Your task to perform on an android device: read, delete, or share a saved page in the chrome app Image 0: 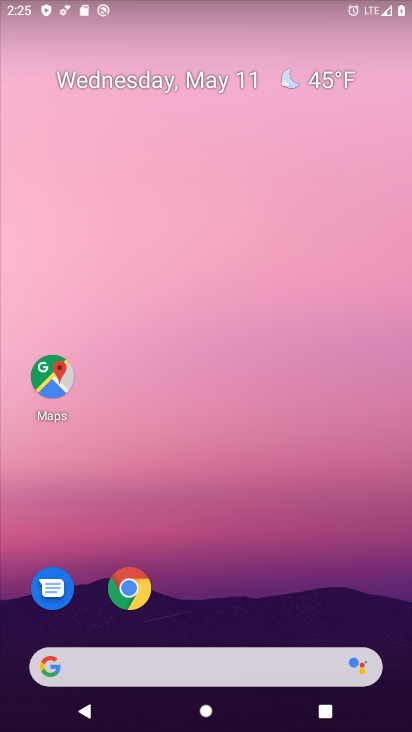
Step 0: drag from (220, 553) to (244, 280)
Your task to perform on an android device: read, delete, or share a saved page in the chrome app Image 1: 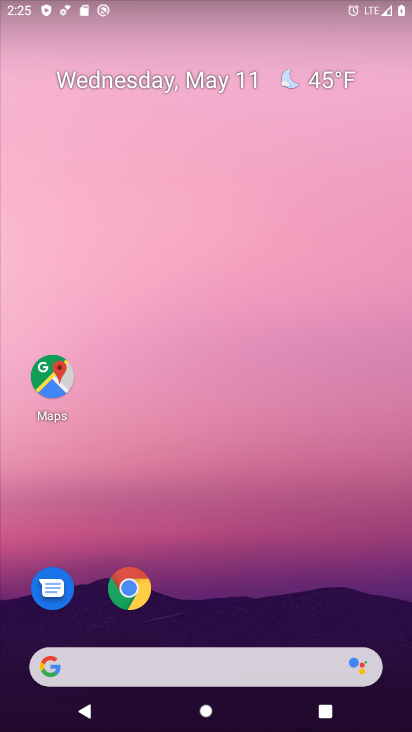
Step 1: click (137, 599)
Your task to perform on an android device: read, delete, or share a saved page in the chrome app Image 2: 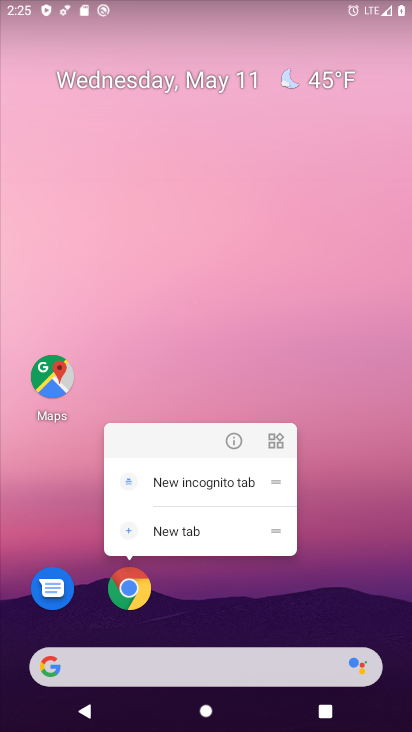
Step 2: click (137, 599)
Your task to perform on an android device: read, delete, or share a saved page in the chrome app Image 3: 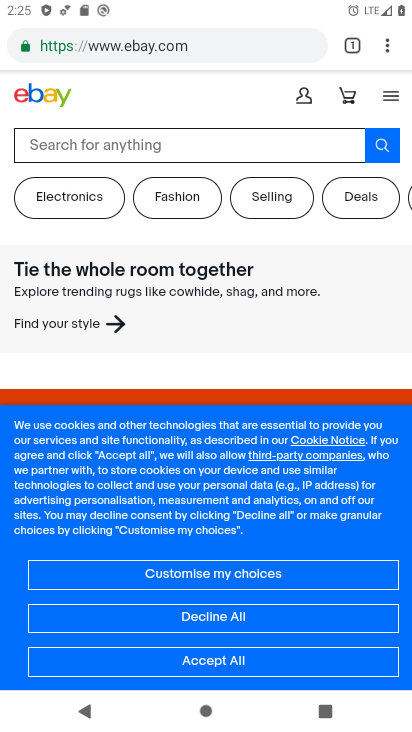
Step 3: drag from (386, 52) to (262, 302)
Your task to perform on an android device: read, delete, or share a saved page in the chrome app Image 4: 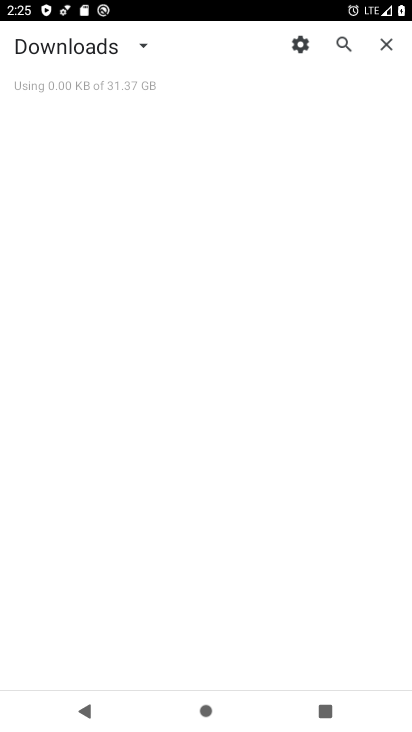
Step 4: click (131, 52)
Your task to perform on an android device: read, delete, or share a saved page in the chrome app Image 5: 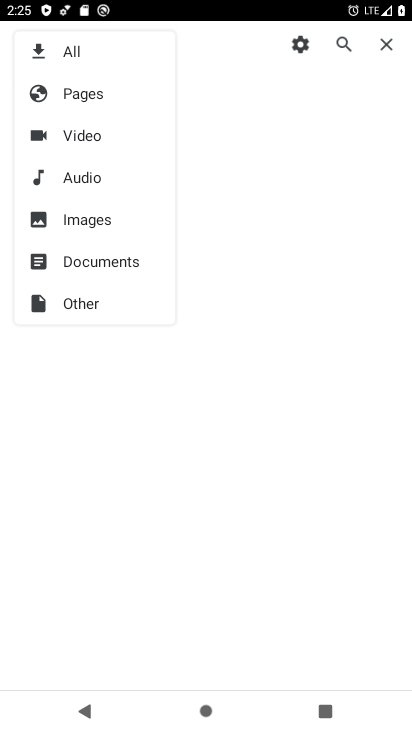
Step 5: click (99, 98)
Your task to perform on an android device: read, delete, or share a saved page in the chrome app Image 6: 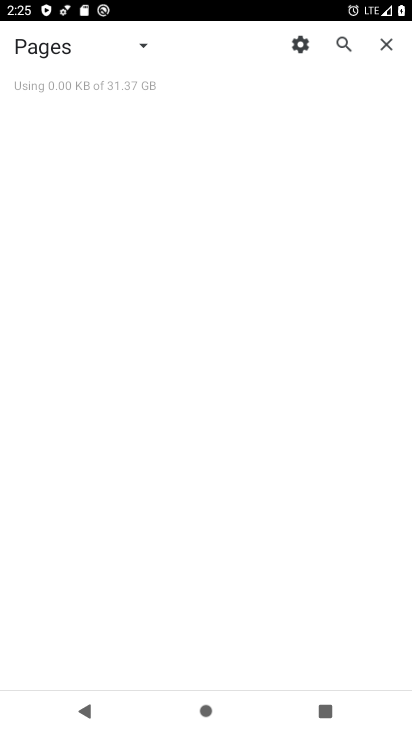
Step 6: task complete